Your task to perform on an android device: toggle data saver in the chrome app Image 0: 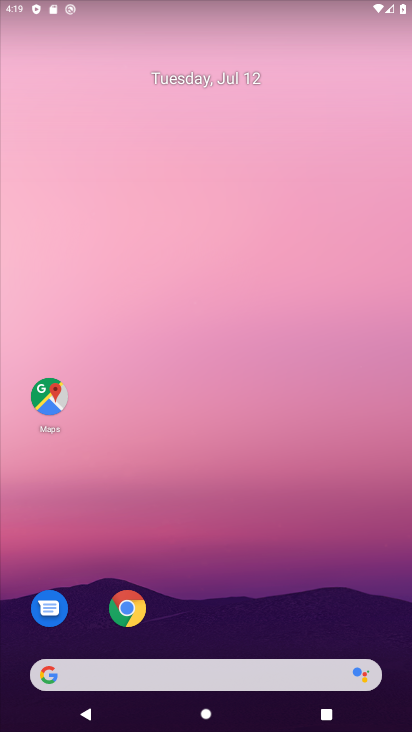
Step 0: click (132, 607)
Your task to perform on an android device: toggle data saver in the chrome app Image 1: 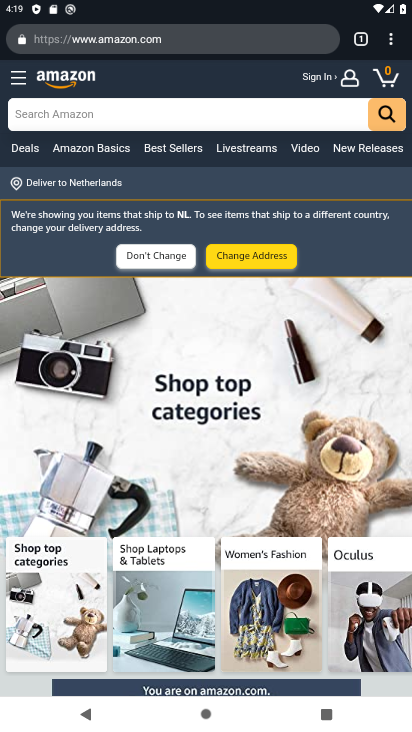
Step 1: click (386, 44)
Your task to perform on an android device: toggle data saver in the chrome app Image 2: 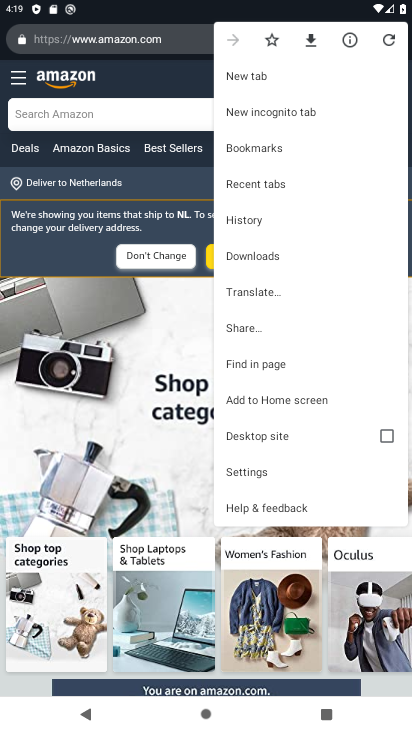
Step 2: click (271, 470)
Your task to perform on an android device: toggle data saver in the chrome app Image 3: 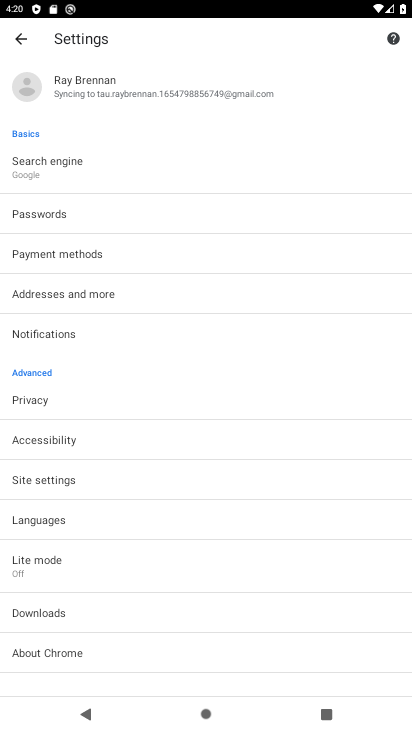
Step 3: click (68, 557)
Your task to perform on an android device: toggle data saver in the chrome app Image 4: 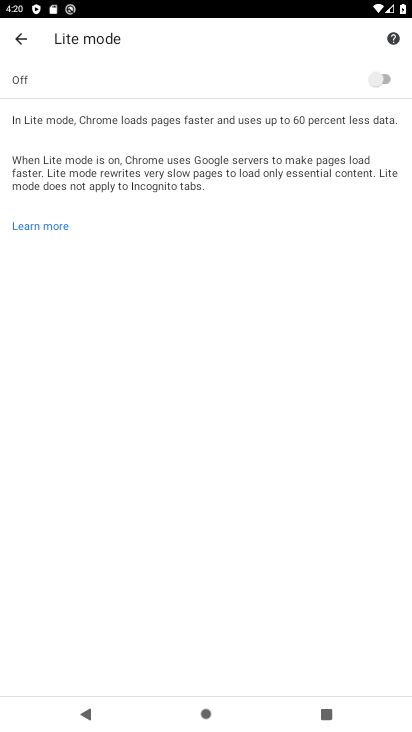
Step 4: click (386, 85)
Your task to perform on an android device: toggle data saver in the chrome app Image 5: 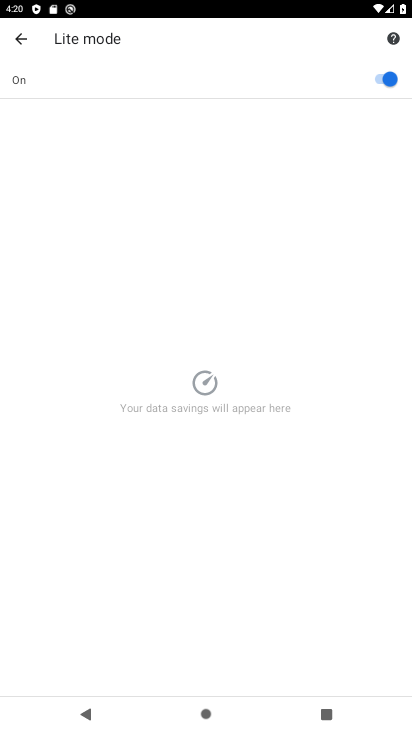
Step 5: task complete